Your task to perform on an android device: turn off smart reply in the gmail app Image 0: 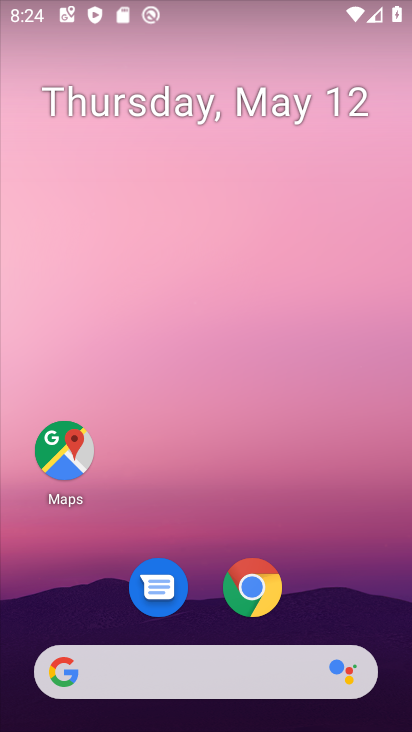
Step 0: drag from (356, 615) to (398, 203)
Your task to perform on an android device: turn off smart reply in the gmail app Image 1: 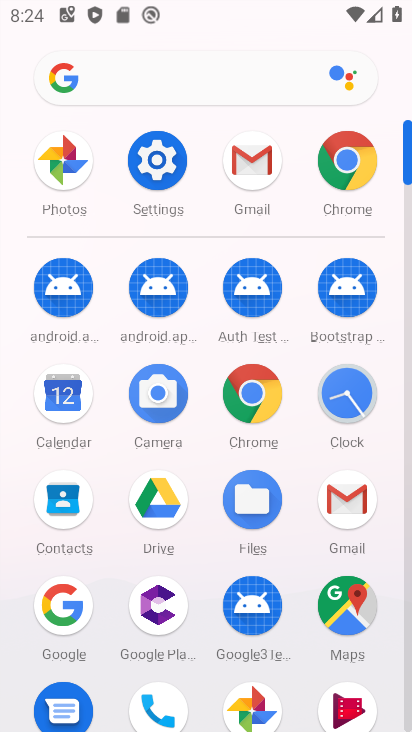
Step 1: click (340, 493)
Your task to perform on an android device: turn off smart reply in the gmail app Image 2: 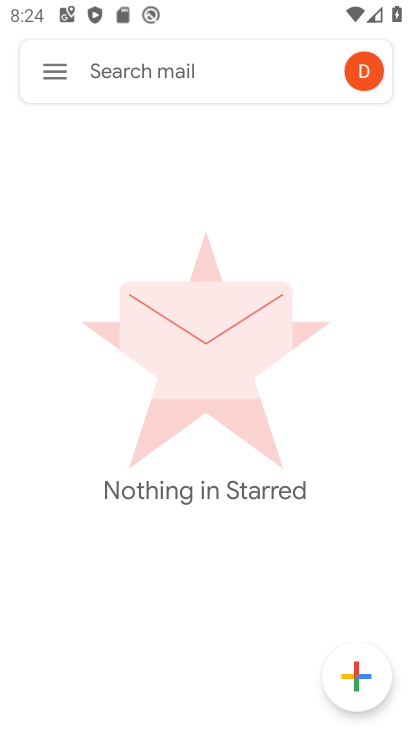
Step 2: click (48, 69)
Your task to perform on an android device: turn off smart reply in the gmail app Image 3: 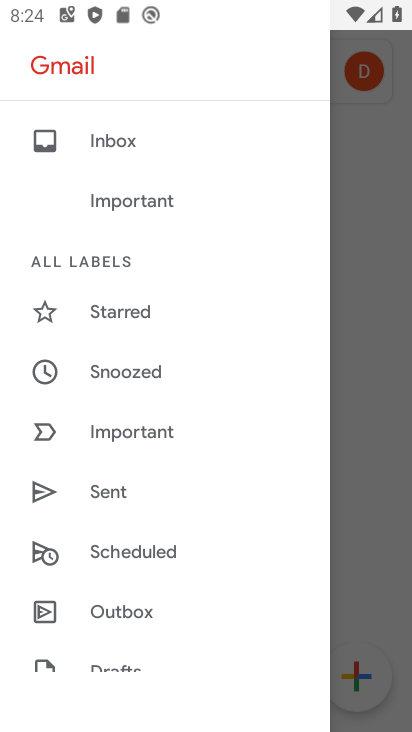
Step 3: drag from (199, 608) to (226, 304)
Your task to perform on an android device: turn off smart reply in the gmail app Image 4: 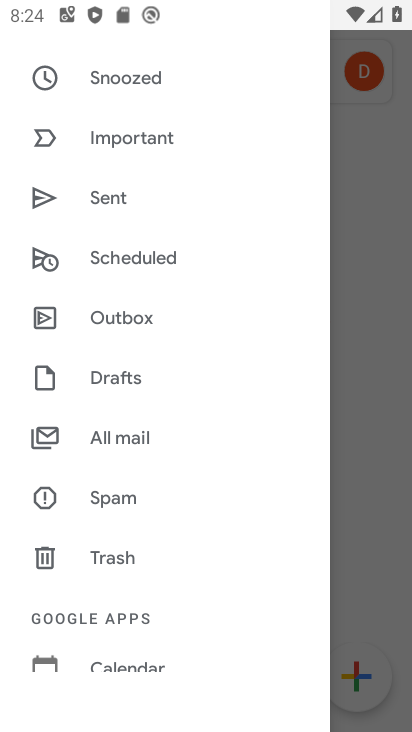
Step 4: drag from (172, 189) to (116, 593)
Your task to perform on an android device: turn off smart reply in the gmail app Image 5: 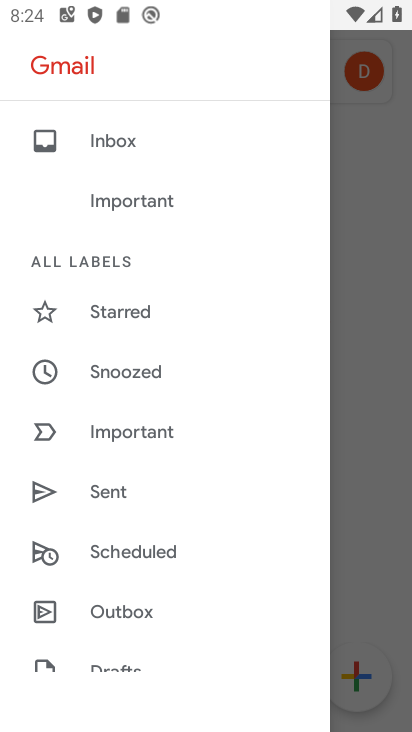
Step 5: drag from (160, 599) to (139, 215)
Your task to perform on an android device: turn off smart reply in the gmail app Image 6: 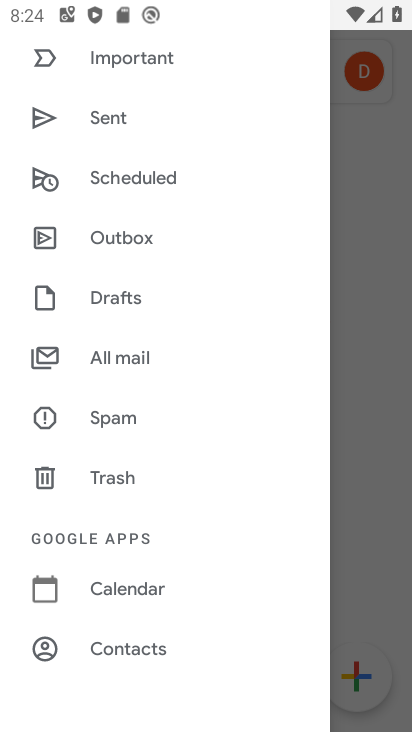
Step 6: drag from (112, 615) to (145, 195)
Your task to perform on an android device: turn off smart reply in the gmail app Image 7: 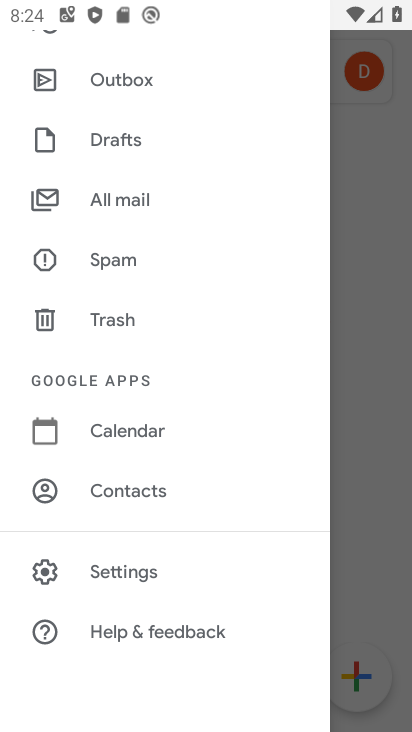
Step 7: click (91, 566)
Your task to perform on an android device: turn off smart reply in the gmail app Image 8: 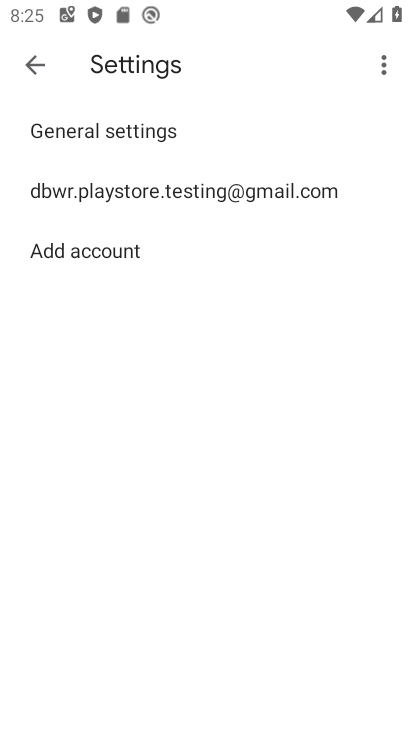
Step 8: click (157, 186)
Your task to perform on an android device: turn off smart reply in the gmail app Image 9: 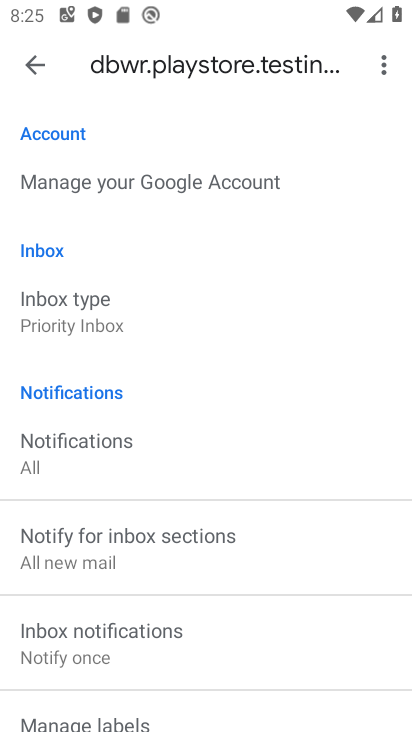
Step 9: drag from (234, 631) to (256, 177)
Your task to perform on an android device: turn off smart reply in the gmail app Image 10: 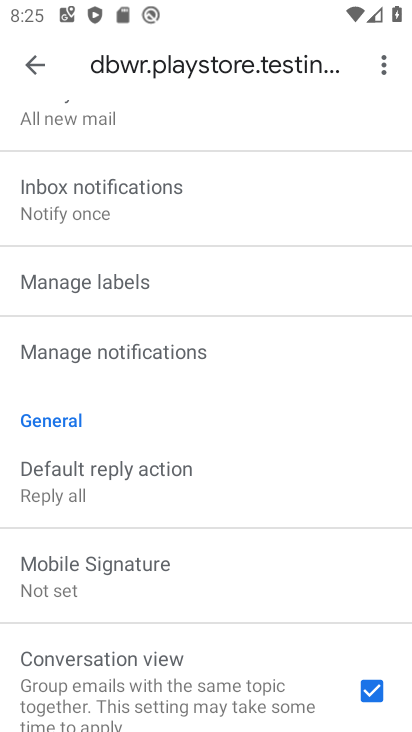
Step 10: drag from (257, 619) to (294, 218)
Your task to perform on an android device: turn off smart reply in the gmail app Image 11: 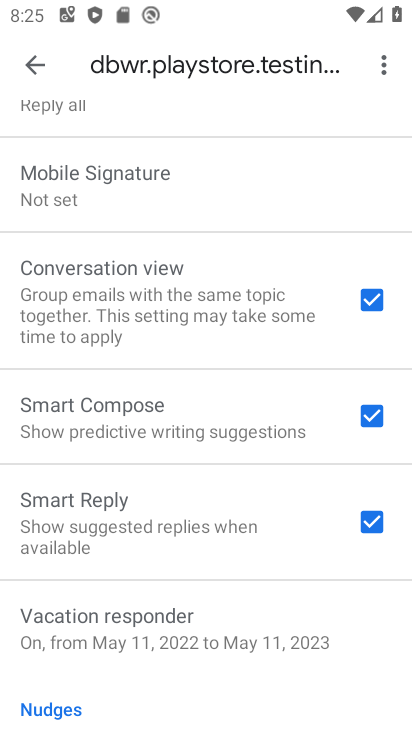
Step 11: click (365, 517)
Your task to perform on an android device: turn off smart reply in the gmail app Image 12: 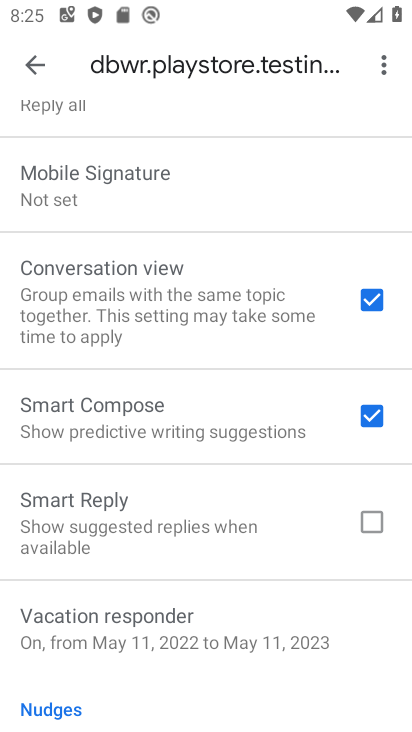
Step 12: task complete